Your task to perform on an android device: open app "TextNow: Call + Text Unlimited" (install if not already installed) Image 0: 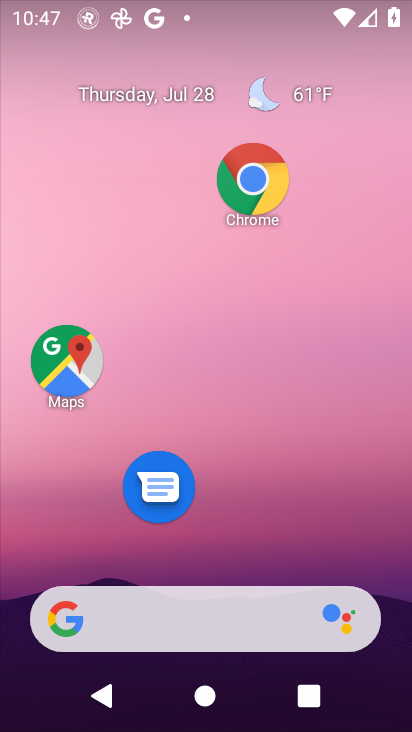
Step 0: drag from (203, 342) to (203, 192)
Your task to perform on an android device: open app "TextNow: Call + Text Unlimited" (install if not already installed) Image 1: 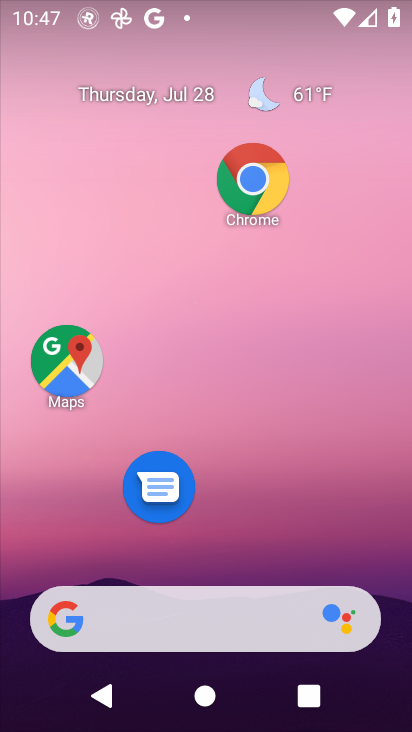
Step 1: drag from (250, 517) to (223, 323)
Your task to perform on an android device: open app "TextNow: Call + Text Unlimited" (install if not already installed) Image 2: 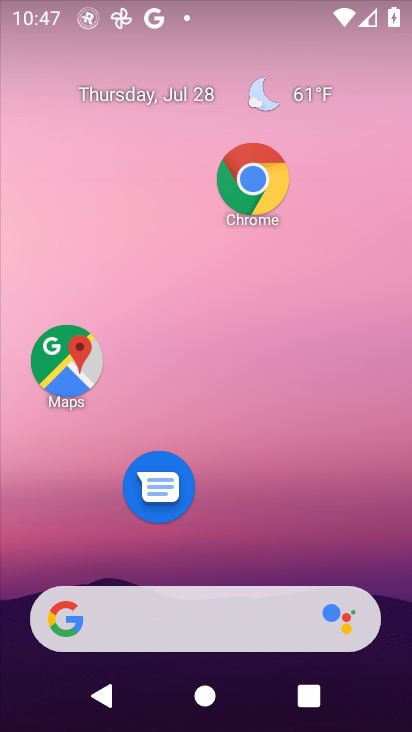
Step 2: drag from (264, 652) to (204, 395)
Your task to perform on an android device: open app "TextNow: Call + Text Unlimited" (install if not already installed) Image 3: 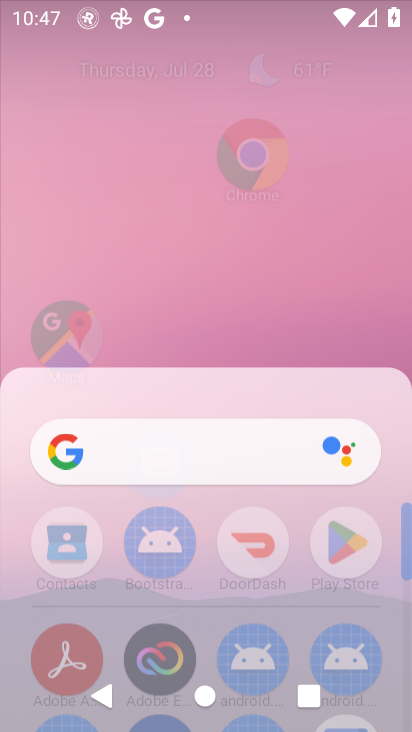
Step 3: drag from (234, 651) to (198, 268)
Your task to perform on an android device: open app "TextNow: Call + Text Unlimited" (install if not already installed) Image 4: 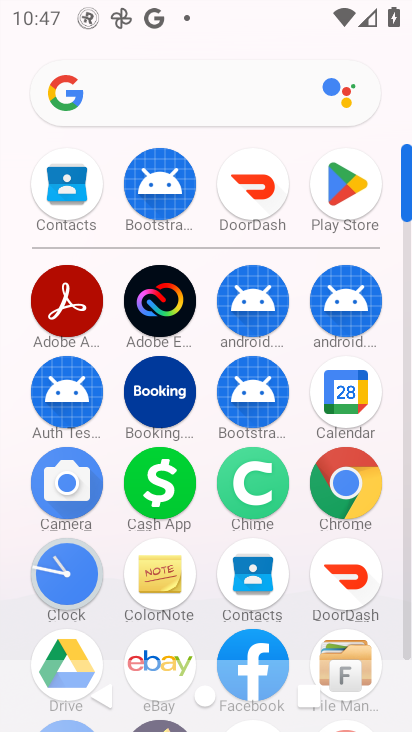
Step 4: click (328, 188)
Your task to perform on an android device: open app "TextNow: Call + Text Unlimited" (install if not already installed) Image 5: 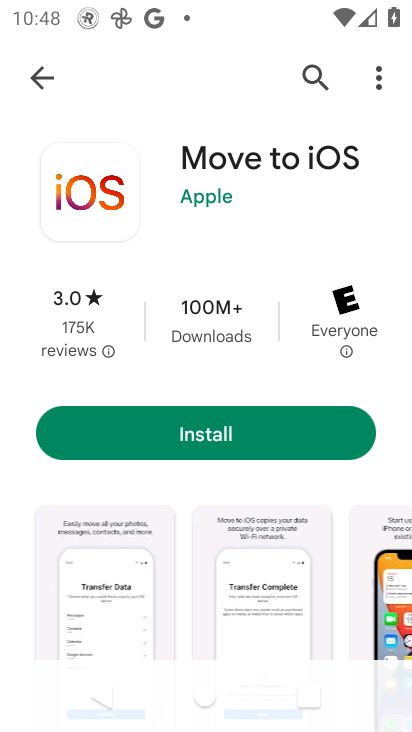
Step 5: click (33, 76)
Your task to perform on an android device: open app "TextNow: Call + Text Unlimited" (install if not already installed) Image 6: 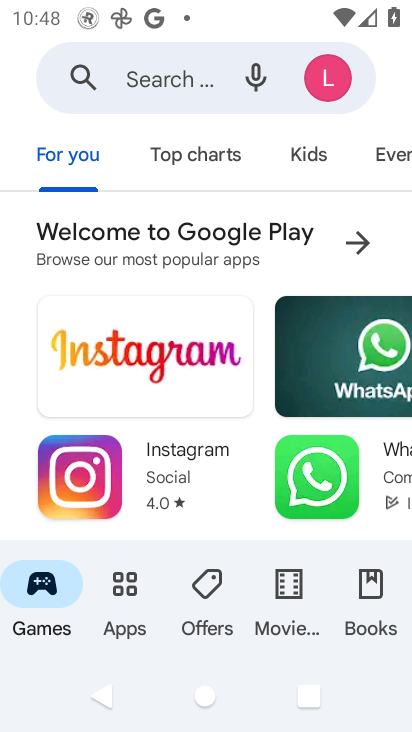
Step 6: click (129, 75)
Your task to perform on an android device: open app "TextNow: Call + Text Unlimited" (install if not already installed) Image 7: 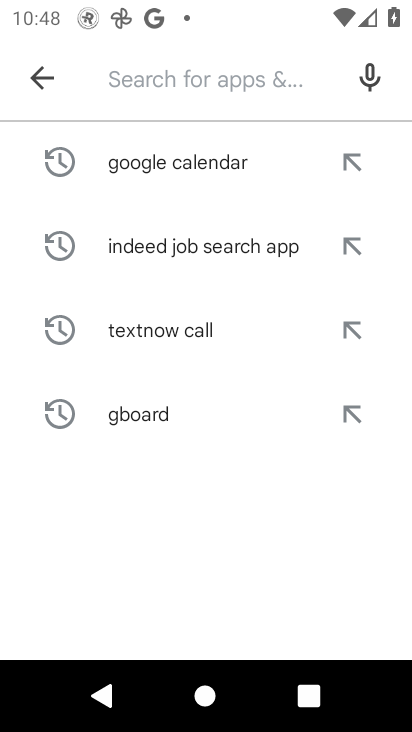
Step 7: type "Textnow: Call+ Text Unlimited"
Your task to perform on an android device: open app "TextNow: Call + Text Unlimited" (install if not already installed) Image 8: 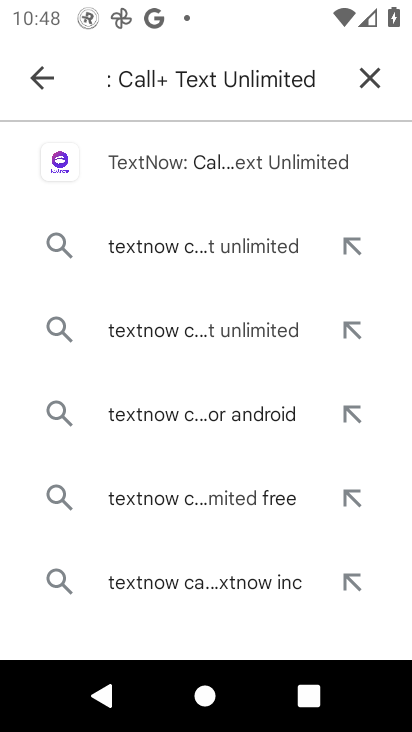
Step 8: click (275, 146)
Your task to perform on an android device: open app "TextNow: Call + Text Unlimited" (install if not already installed) Image 9: 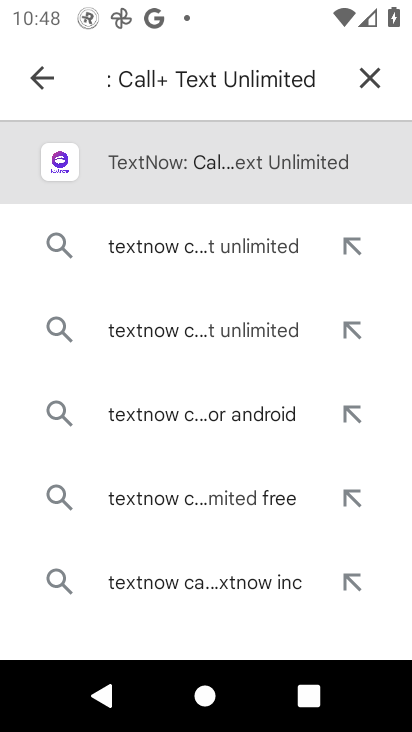
Step 9: click (272, 153)
Your task to perform on an android device: open app "TextNow: Call + Text Unlimited" (install if not already installed) Image 10: 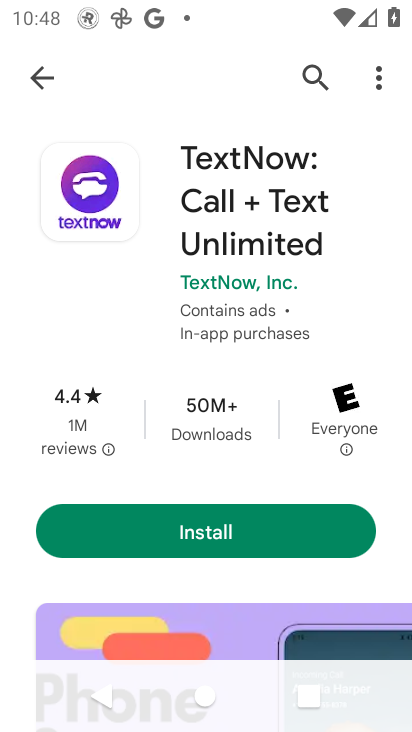
Step 10: click (218, 524)
Your task to perform on an android device: open app "TextNow: Call + Text Unlimited" (install if not already installed) Image 11: 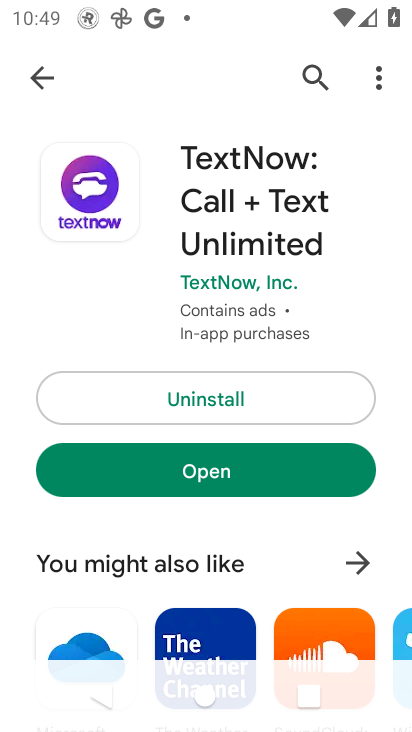
Step 11: click (279, 465)
Your task to perform on an android device: open app "TextNow: Call + Text Unlimited" (install if not already installed) Image 12: 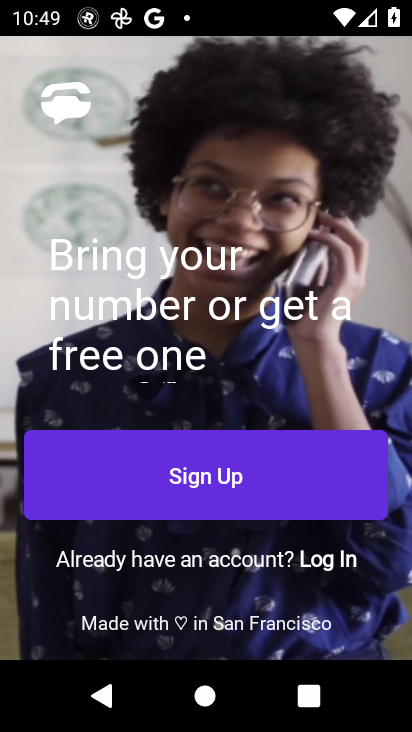
Step 12: task complete